Your task to perform on an android device: When is my next meeting? Image 0: 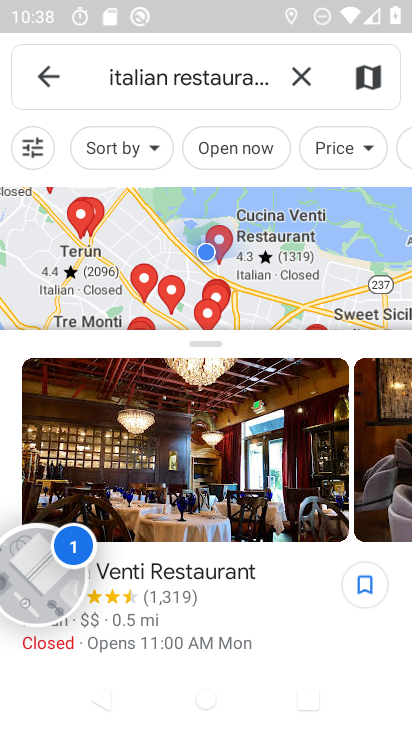
Step 0: press home button
Your task to perform on an android device: When is my next meeting? Image 1: 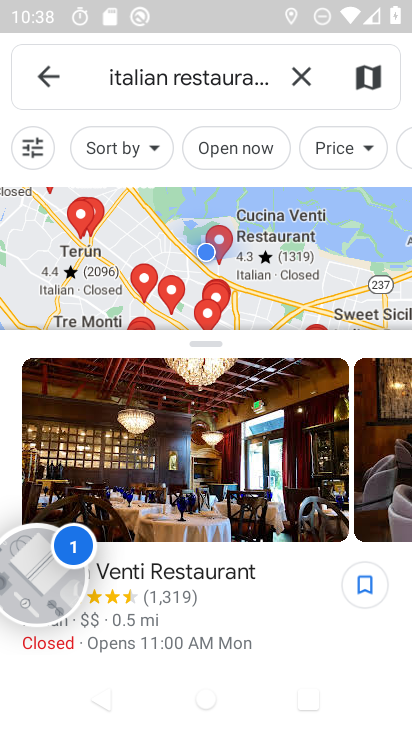
Step 1: press home button
Your task to perform on an android device: When is my next meeting? Image 2: 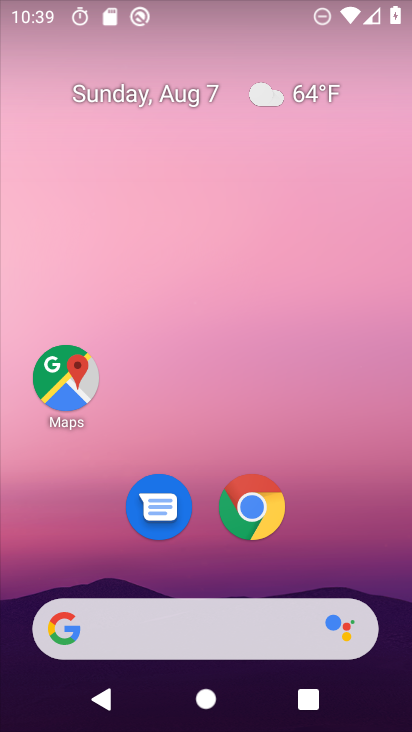
Step 2: drag from (292, 140) to (285, 67)
Your task to perform on an android device: When is my next meeting? Image 3: 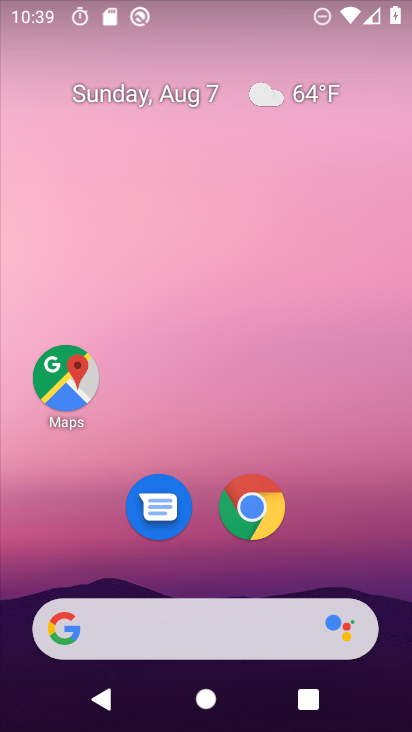
Step 3: drag from (342, 500) to (355, 52)
Your task to perform on an android device: When is my next meeting? Image 4: 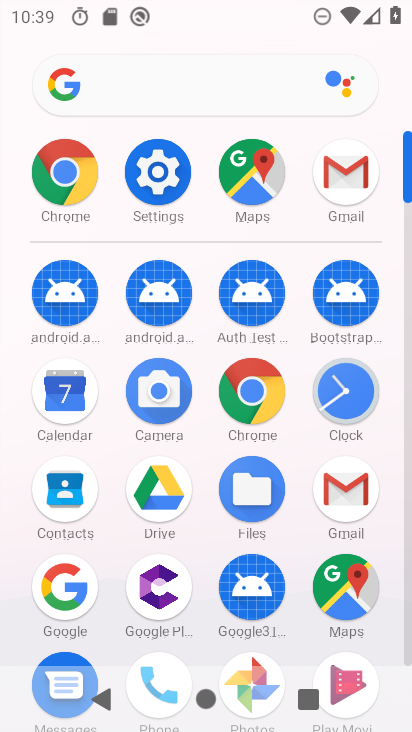
Step 4: click (57, 396)
Your task to perform on an android device: When is my next meeting? Image 5: 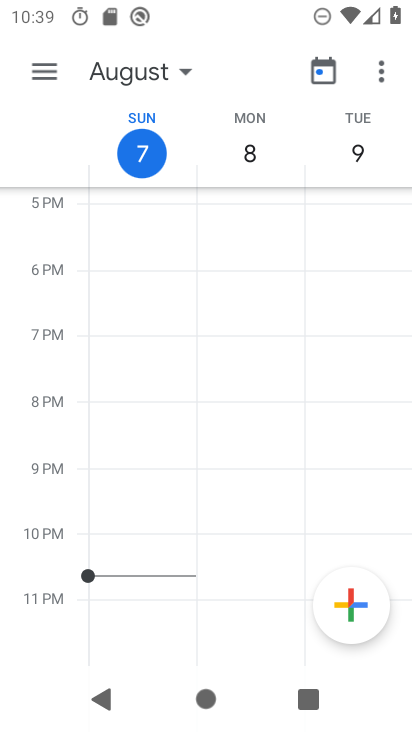
Step 5: task complete